Your task to perform on an android device: Find coffee shops on Maps Image 0: 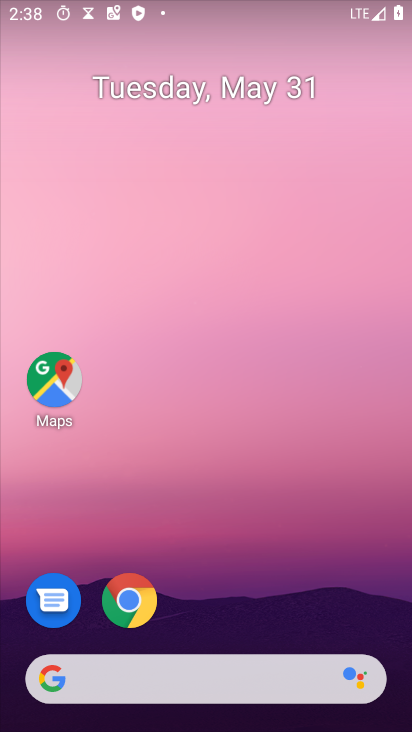
Step 0: click (52, 374)
Your task to perform on an android device: Find coffee shops on Maps Image 1: 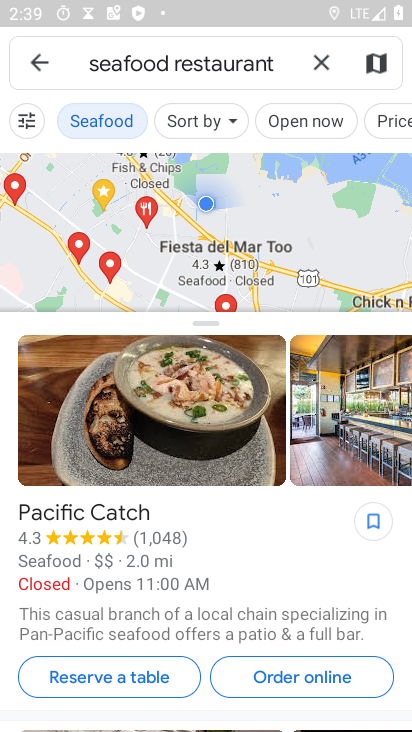
Step 1: click (317, 68)
Your task to perform on an android device: Find coffee shops on Maps Image 2: 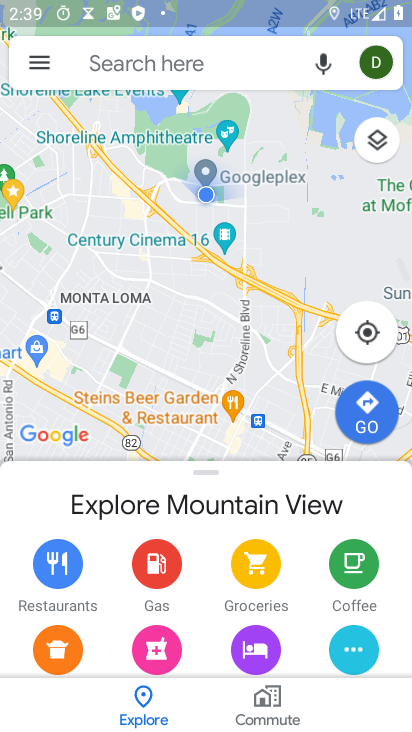
Step 2: click (128, 57)
Your task to perform on an android device: Find coffee shops on Maps Image 3: 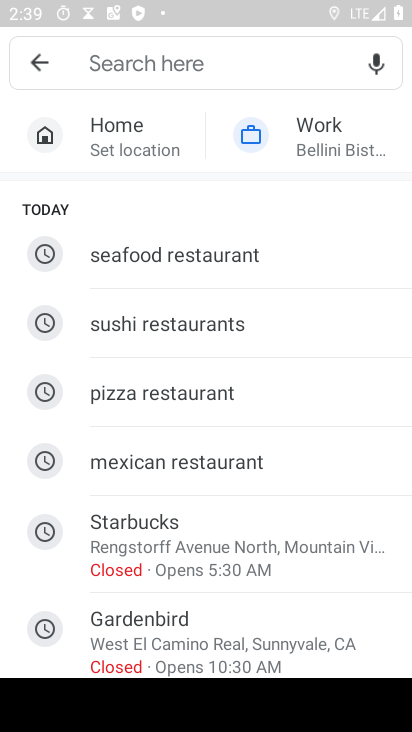
Step 3: type "coffee"
Your task to perform on an android device: Find coffee shops on Maps Image 4: 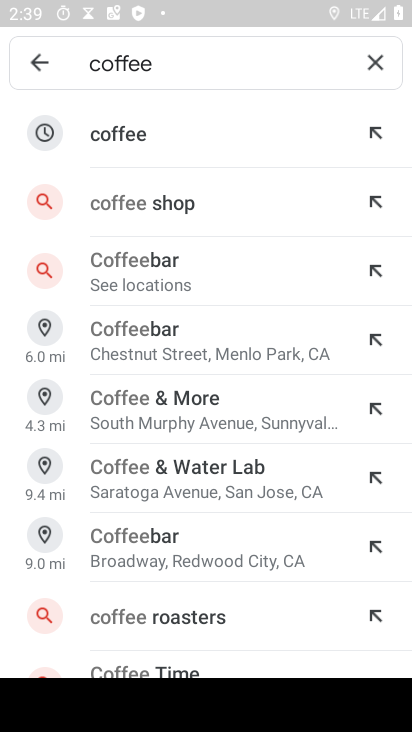
Step 4: click (156, 118)
Your task to perform on an android device: Find coffee shops on Maps Image 5: 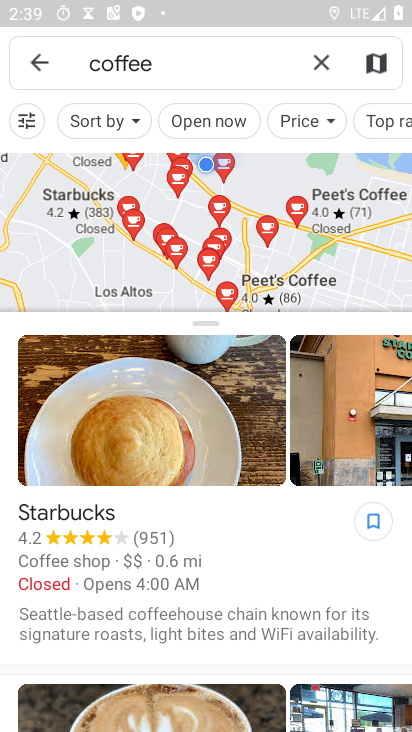
Step 5: task complete